Your task to perform on an android device: Open Google Chrome Image 0: 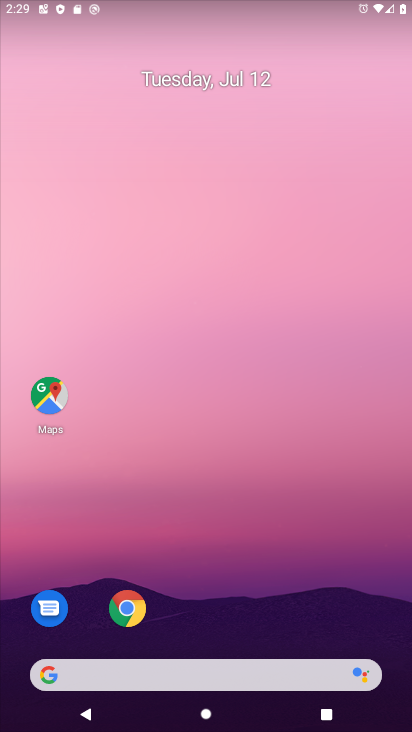
Step 0: drag from (195, 606) to (171, 118)
Your task to perform on an android device: Open Google Chrome Image 1: 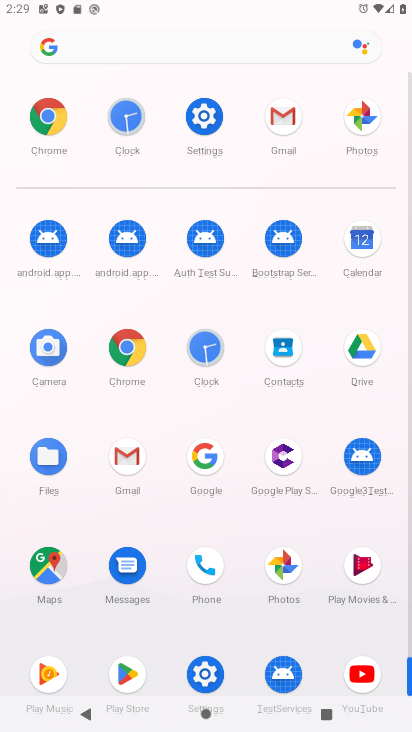
Step 1: click (131, 345)
Your task to perform on an android device: Open Google Chrome Image 2: 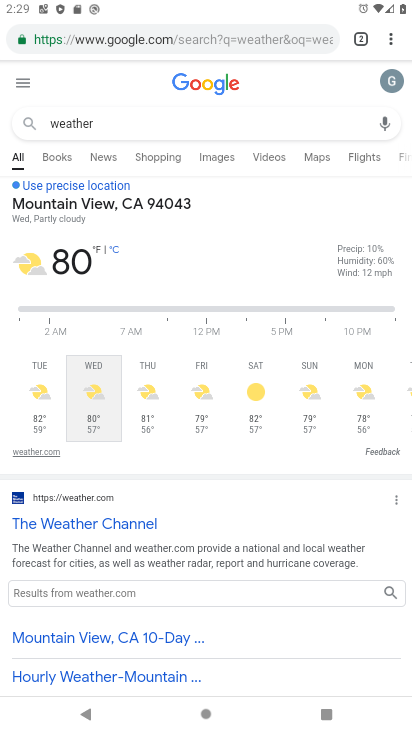
Step 2: task complete